Your task to perform on an android device: Go to sound settings Image 0: 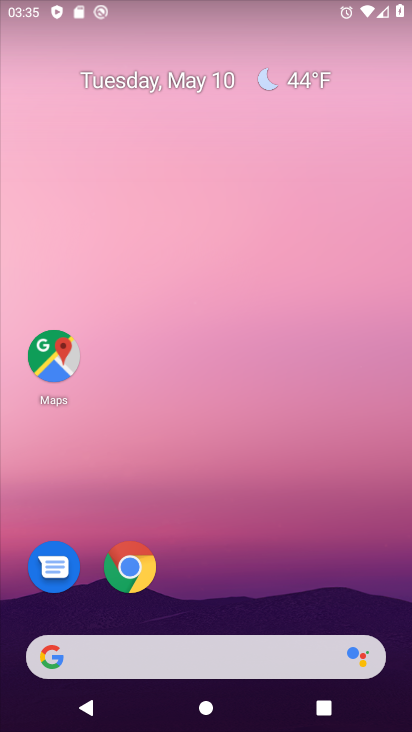
Step 0: drag from (216, 575) to (257, 78)
Your task to perform on an android device: Go to sound settings Image 1: 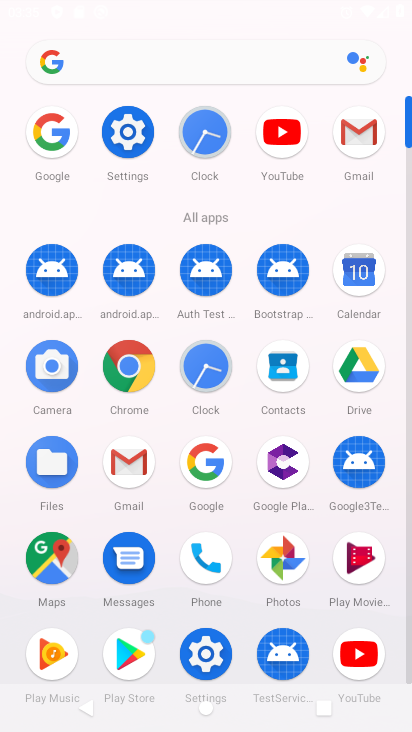
Step 1: click (112, 144)
Your task to perform on an android device: Go to sound settings Image 2: 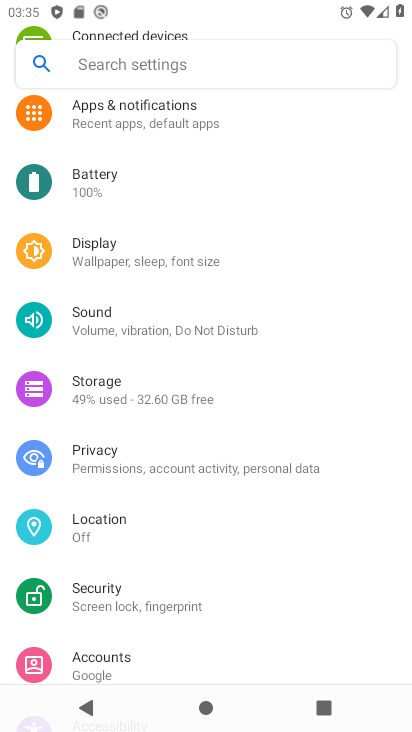
Step 2: click (147, 319)
Your task to perform on an android device: Go to sound settings Image 3: 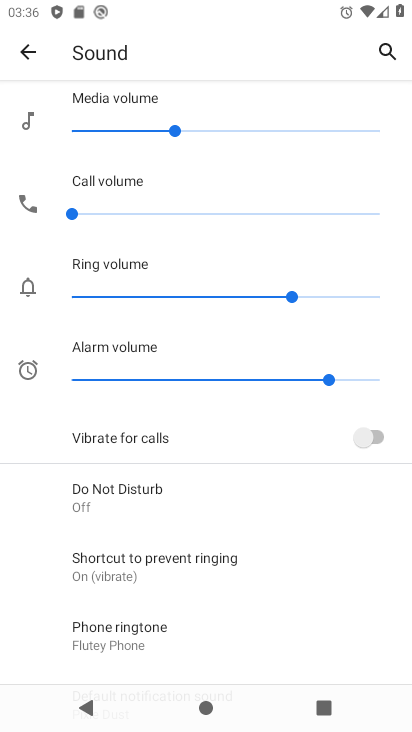
Step 3: task complete